Your task to perform on an android device: turn off location history Image 0: 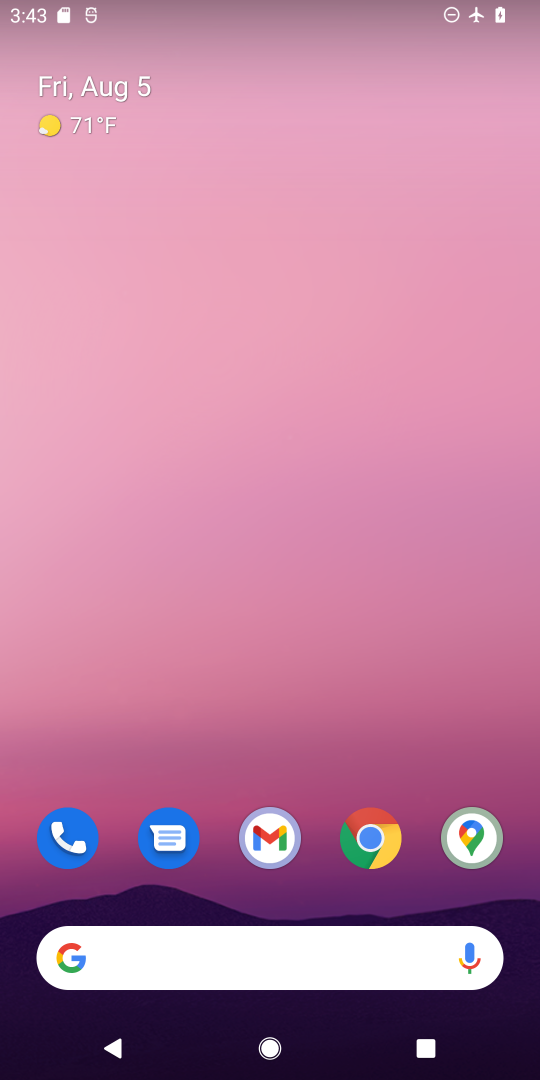
Step 0: drag from (328, 885) to (251, 41)
Your task to perform on an android device: turn off location history Image 1: 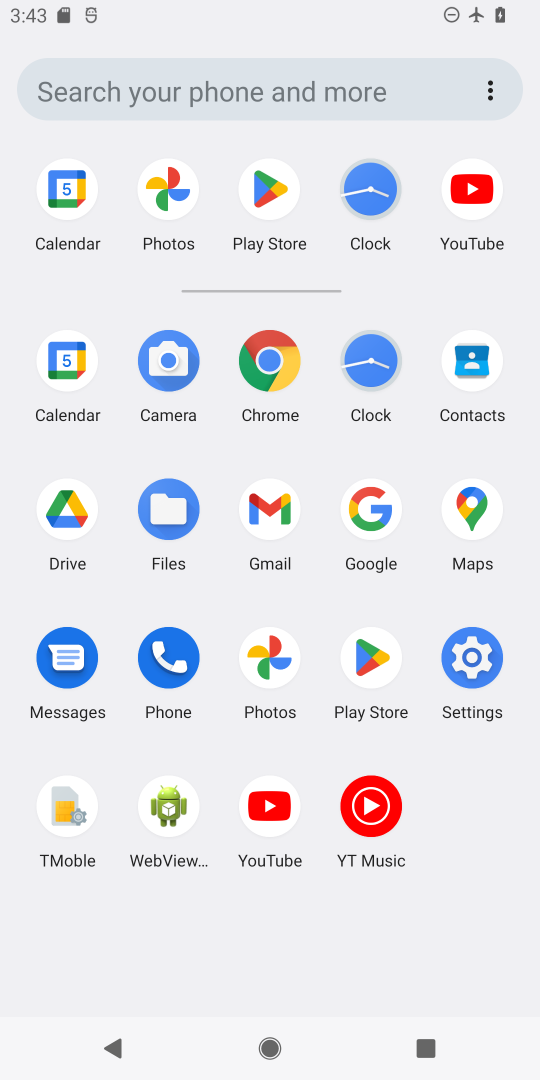
Step 1: click (472, 505)
Your task to perform on an android device: turn off location history Image 2: 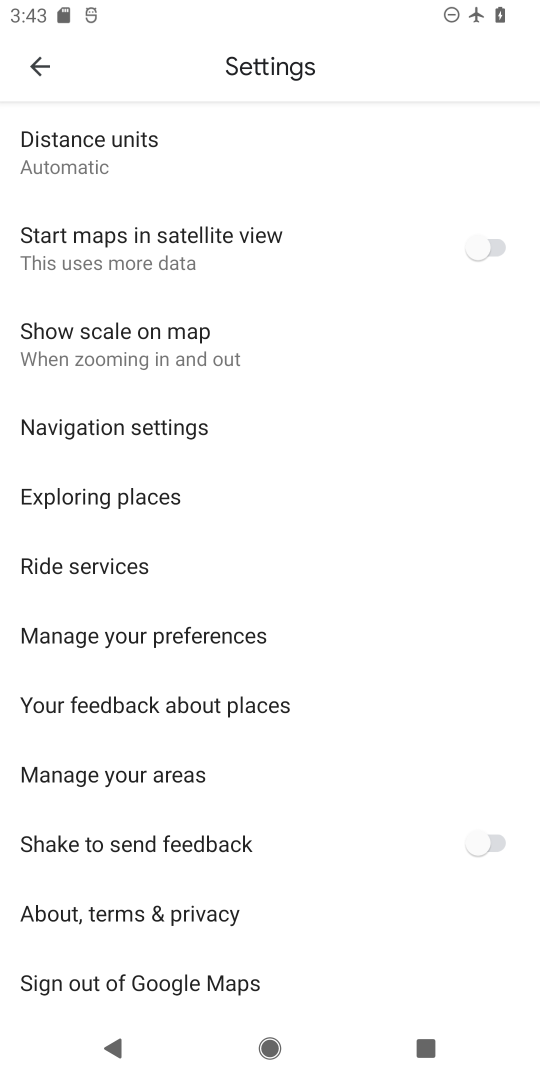
Step 2: drag from (265, 804) to (251, 219)
Your task to perform on an android device: turn off location history Image 3: 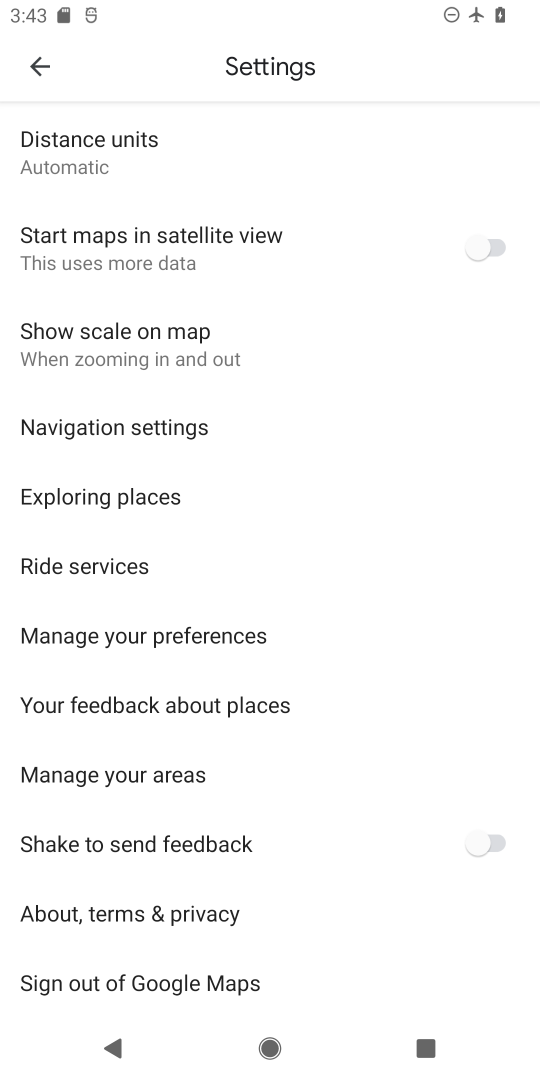
Step 3: click (47, 50)
Your task to perform on an android device: turn off location history Image 4: 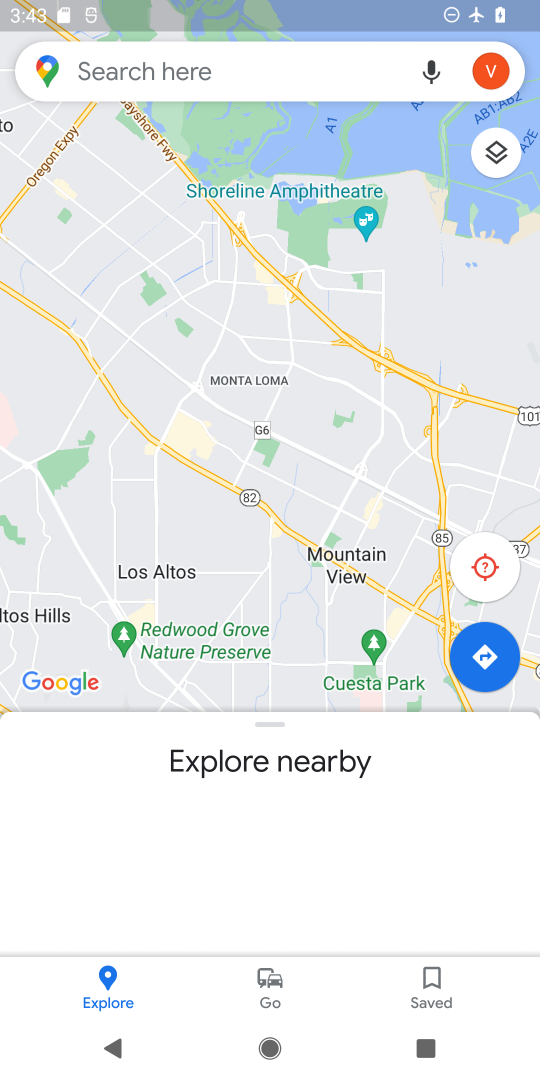
Step 4: click (504, 75)
Your task to perform on an android device: turn off location history Image 5: 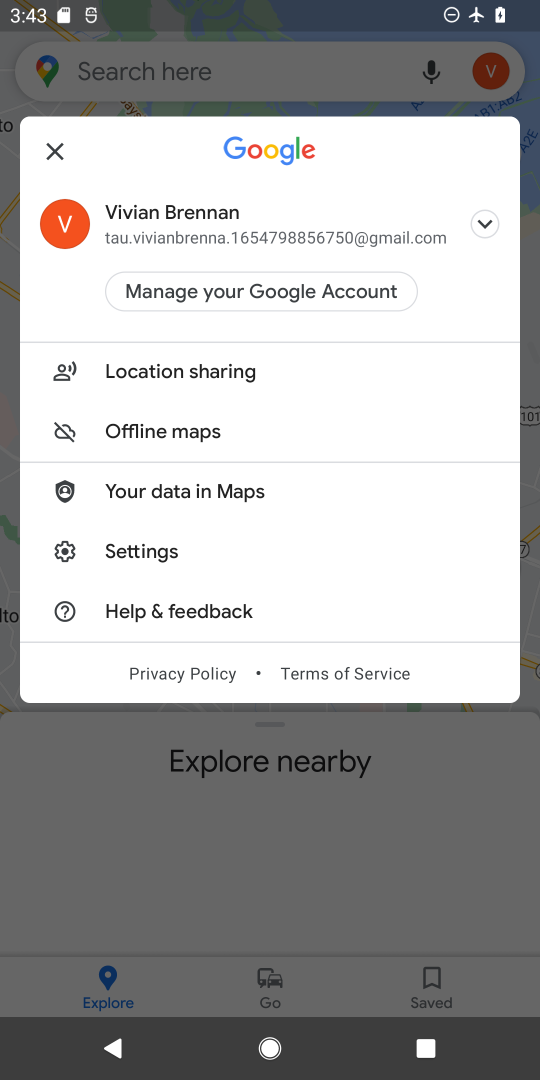
Step 5: click (195, 546)
Your task to perform on an android device: turn off location history Image 6: 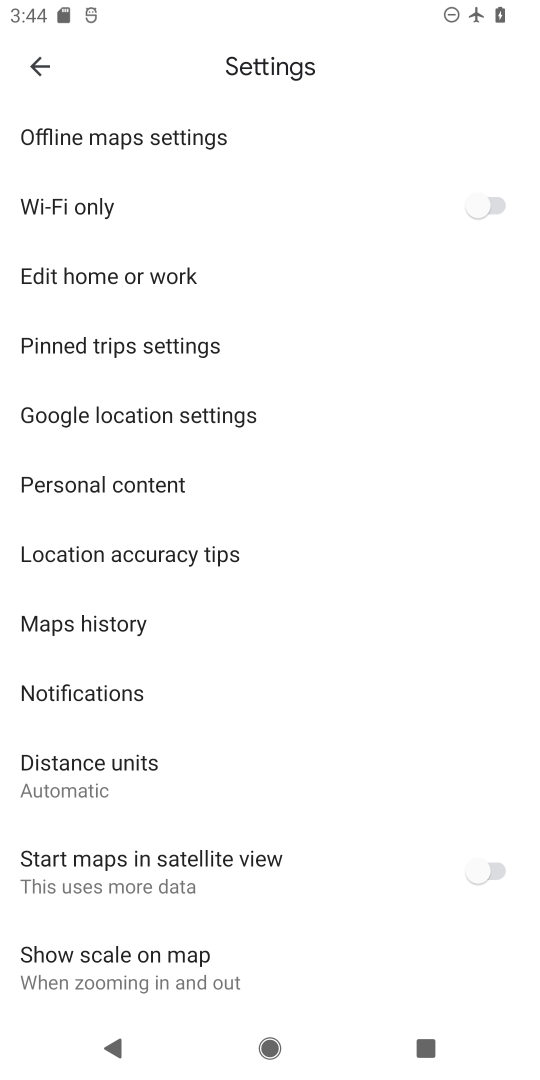
Step 6: task complete